Your task to perform on an android device: turn off sleep mode Image 0: 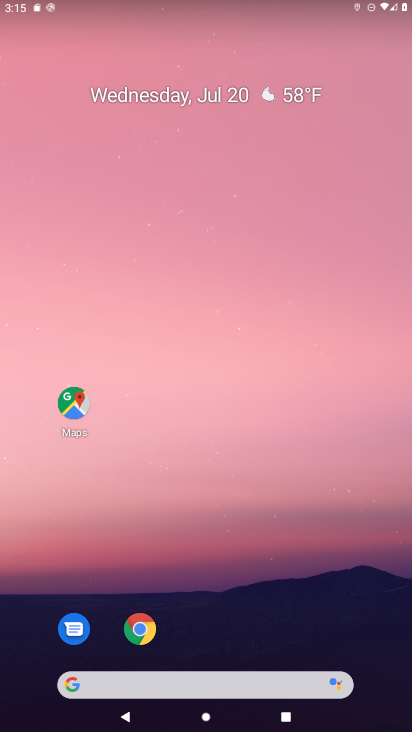
Step 0: drag from (321, 639) to (313, 76)
Your task to perform on an android device: turn off sleep mode Image 1: 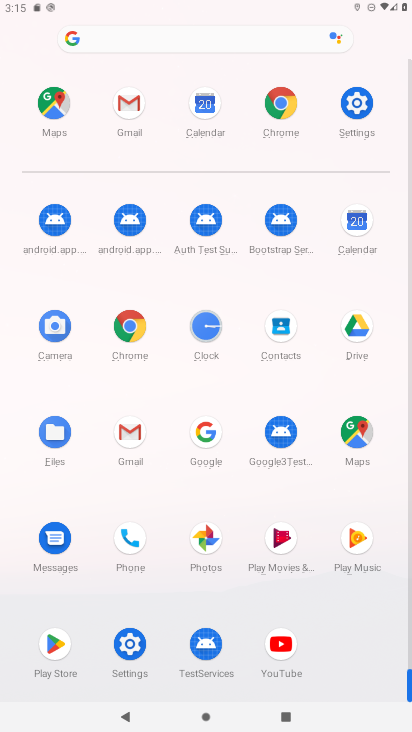
Step 1: click (138, 642)
Your task to perform on an android device: turn off sleep mode Image 2: 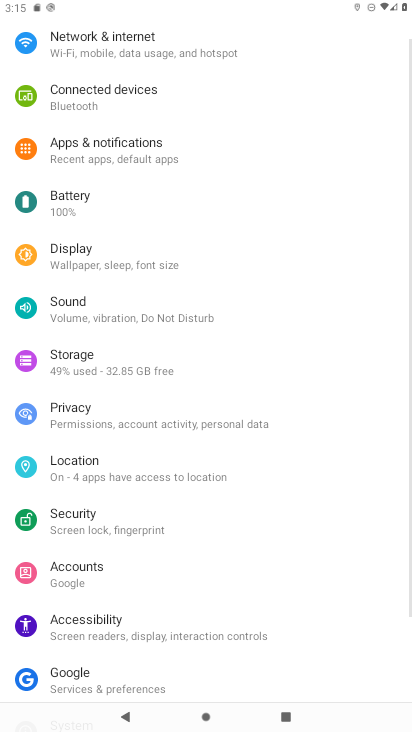
Step 2: drag from (226, 570) to (299, 331)
Your task to perform on an android device: turn off sleep mode Image 3: 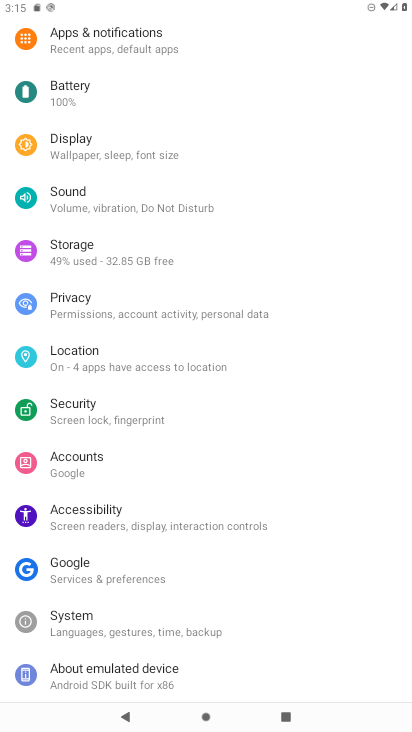
Step 3: click (83, 134)
Your task to perform on an android device: turn off sleep mode Image 4: 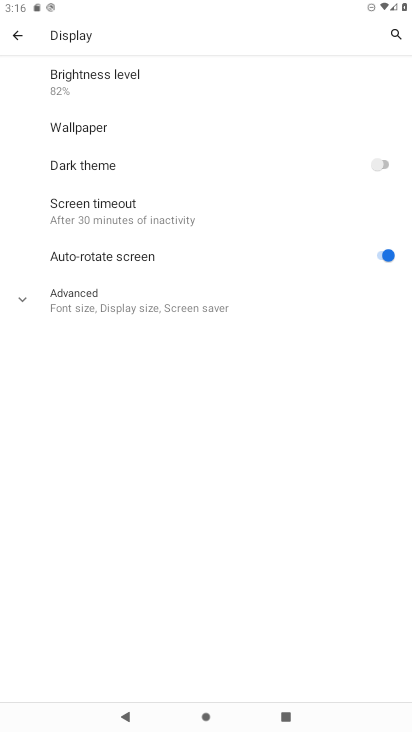
Step 4: task complete